Your task to perform on an android device: Search for vegetarian restaurants on Maps Image 0: 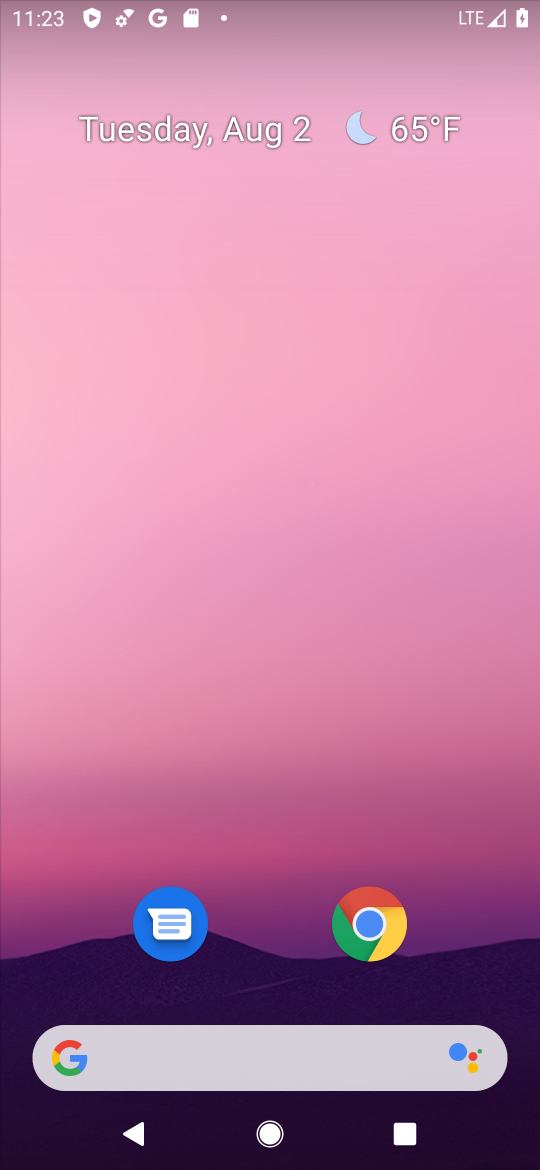
Step 0: drag from (244, 953) to (301, 391)
Your task to perform on an android device: Search for vegetarian restaurants on Maps Image 1: 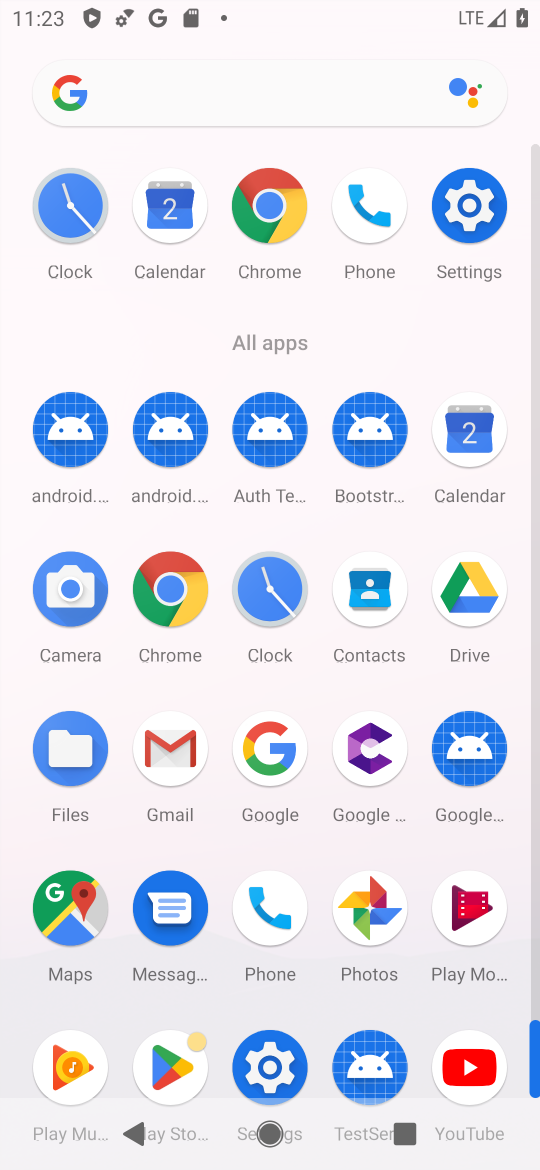
Step 1: click (89, 909)
Your task to perform on an android device: Search for vegetarian restaurants on Maps Image 2: 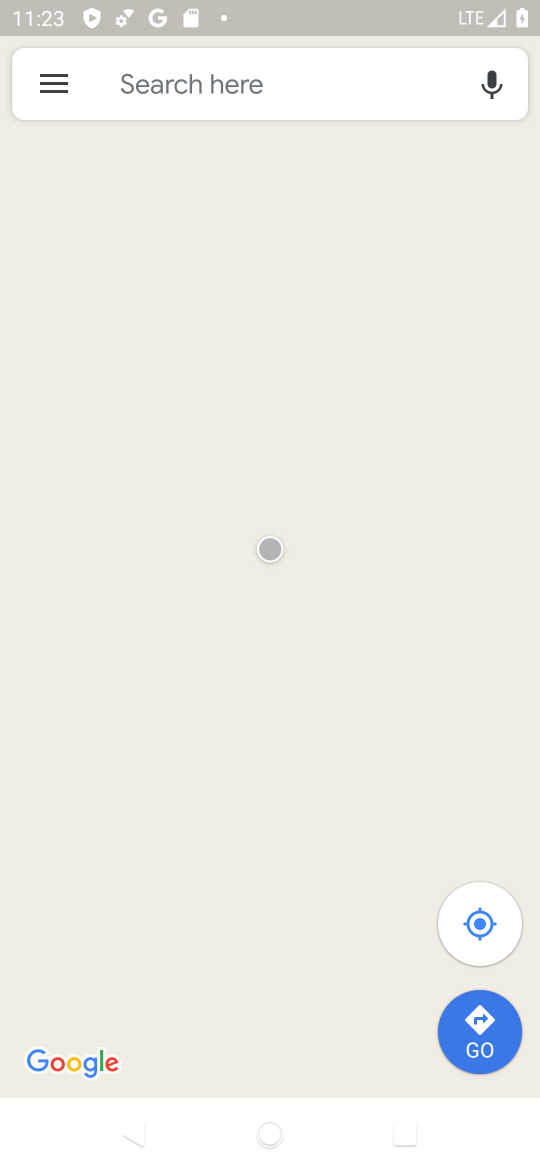
Step 2: click (253, 76)
Your task to perform on an android device: Search for vegetarian restaurants on Maps Image 3: 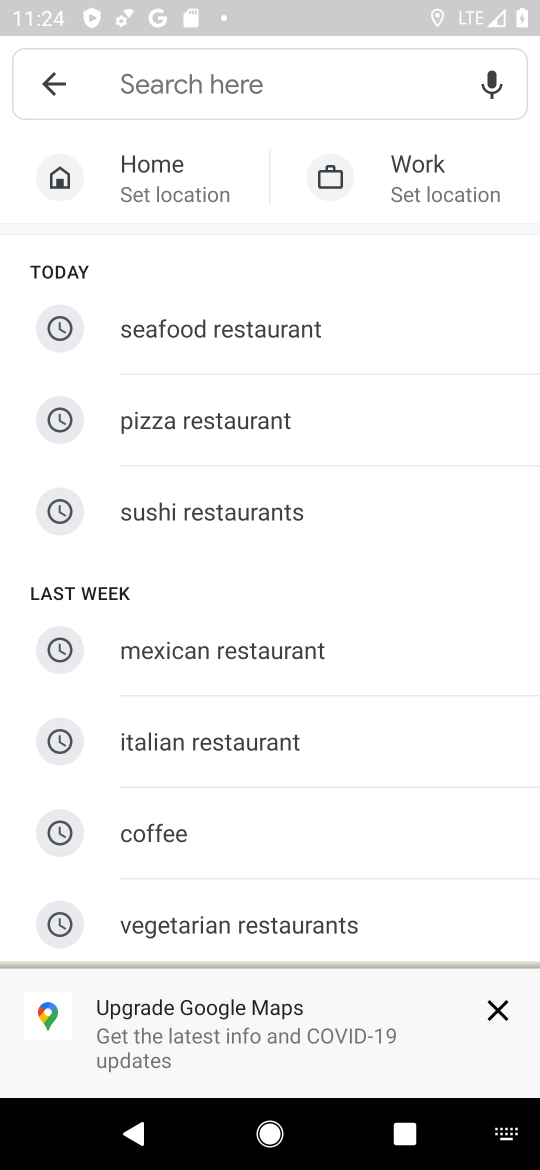
Step 3: click (289, 913)
Your task to perform on an android device: Search for vegetarian restaurants on Maps Image 4: 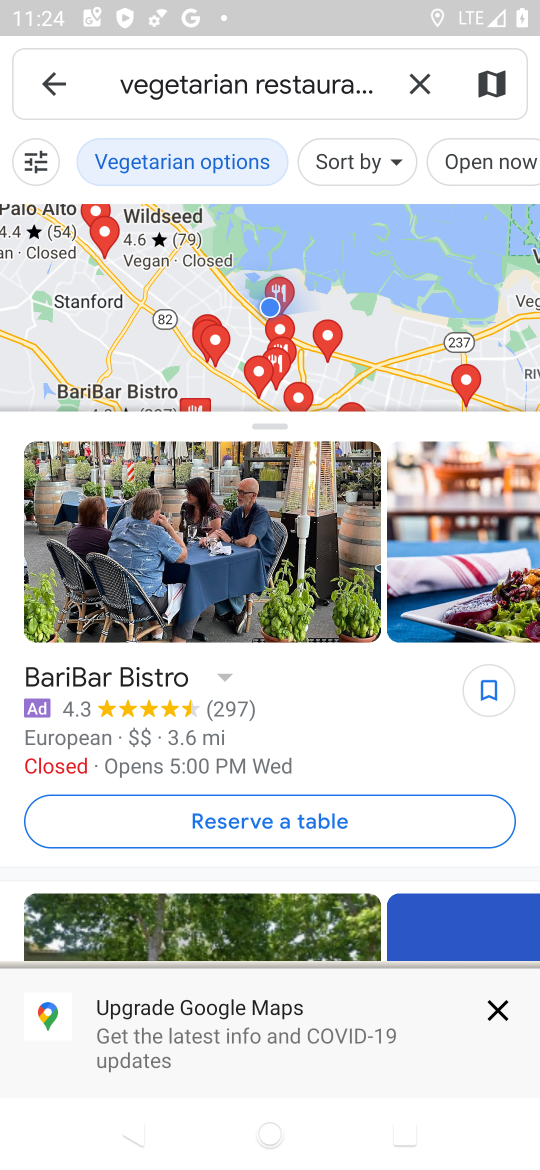
Step 4: task complete